Your task to perform on an android device: Is it going to rain this weekend? Image 0: 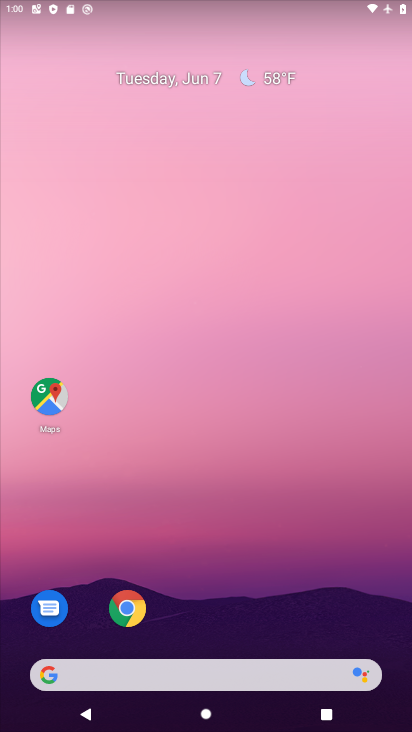
Step 0: click (278, 135)
Your task to perform on an android device: Is it going to rain this weekend? Image 1: 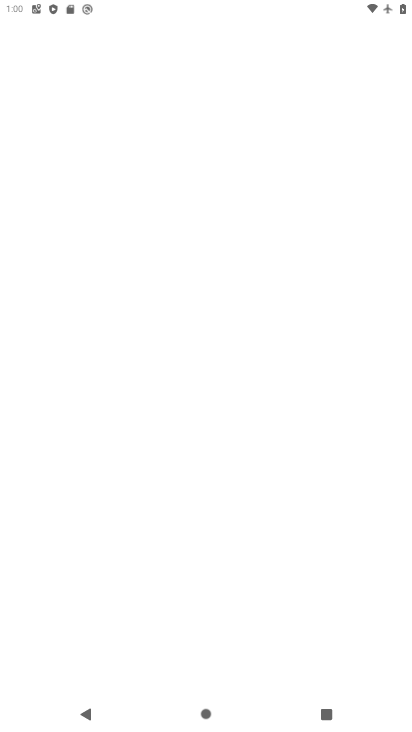
Step 1: press home button
Your task to perform on an android device: Is it going to rain this weekend? Image 2: 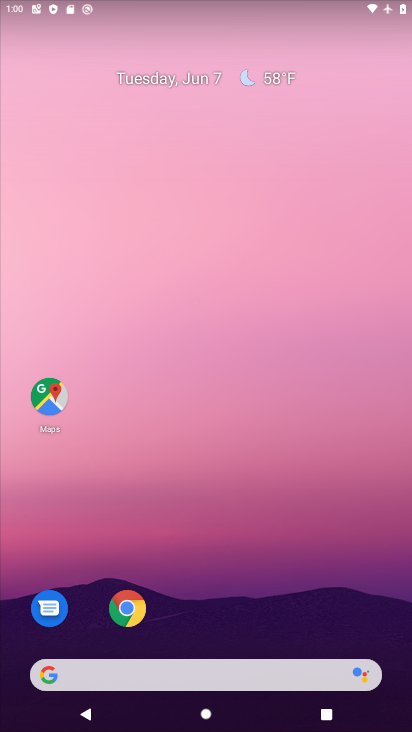
Step 2: click (274, 85)
Your task to perform on an android device: Is it going to rain this weekend? Image 3: 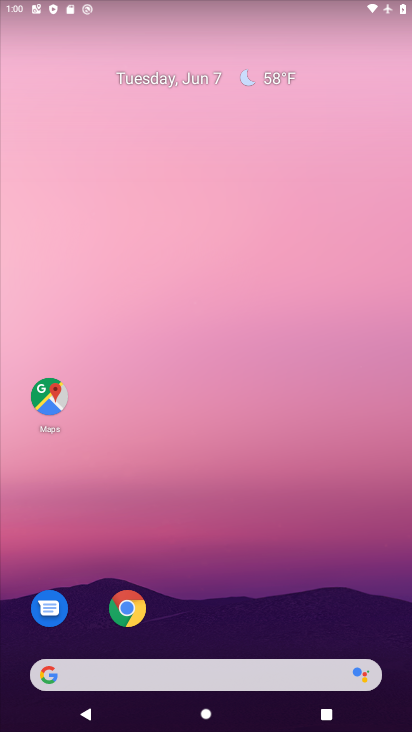
Step 3: click (265, 76)
Your task to perform on an android device: Is it going to rain this weekend? Image 4: 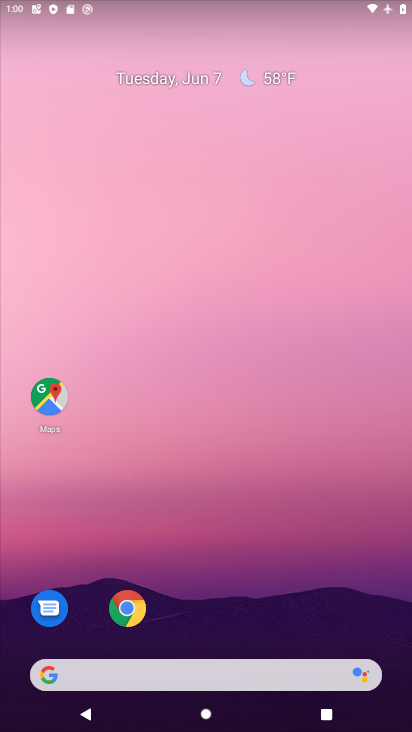
Step 4: click (268, 77)
Your task to perform on an android device: Is it going to rain this weekend? Image 5: 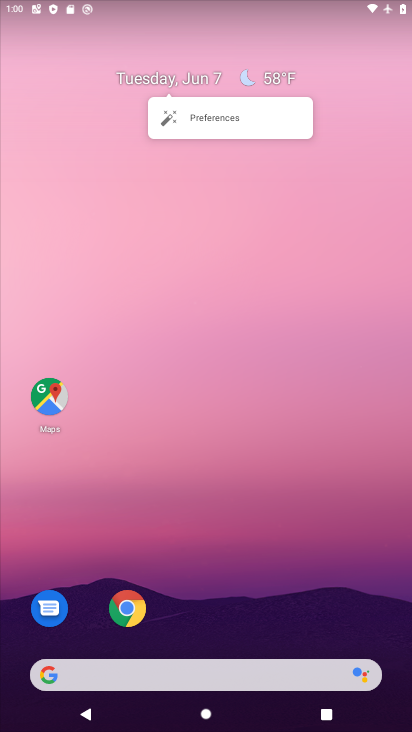
Step 5: click (301, 76)
Your task to perform on an android device: Is it going to rain this weekend? Image 6: 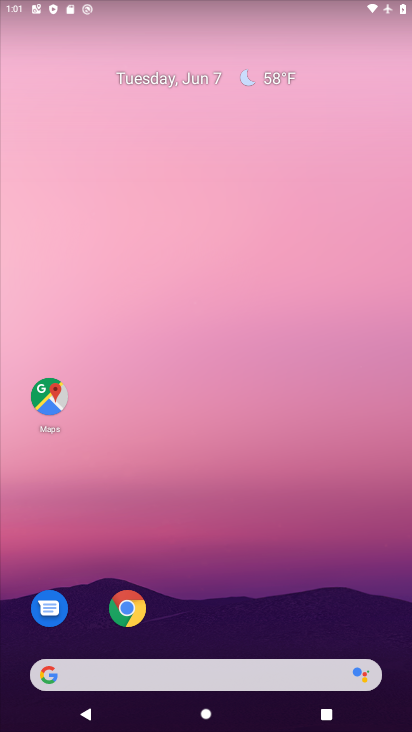
Step 6: click (128, 607)
Your task to perform on an android device: Is it going to rain this weekend? Image 7: 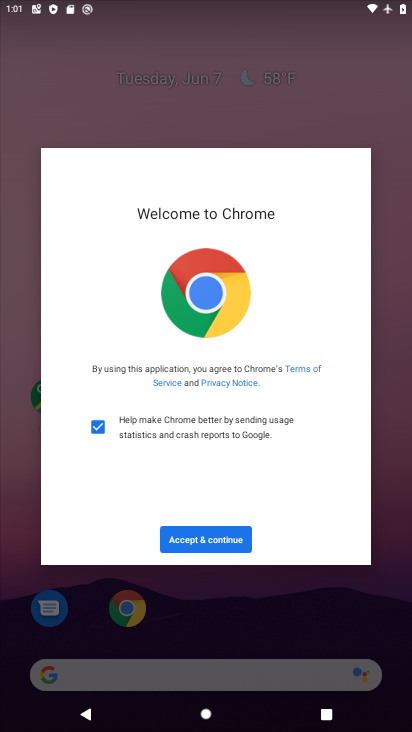
Step 7: click (215, 537)
Your task to perform on an android device: Is it going to rain this weekend? Image 8: 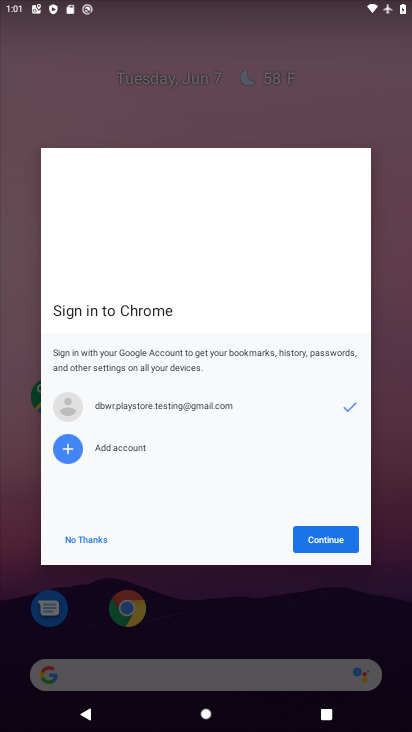
Step 8: click (337, 533)
Your task to perform on an android device: Is it going to rain this weekend? Image 9: 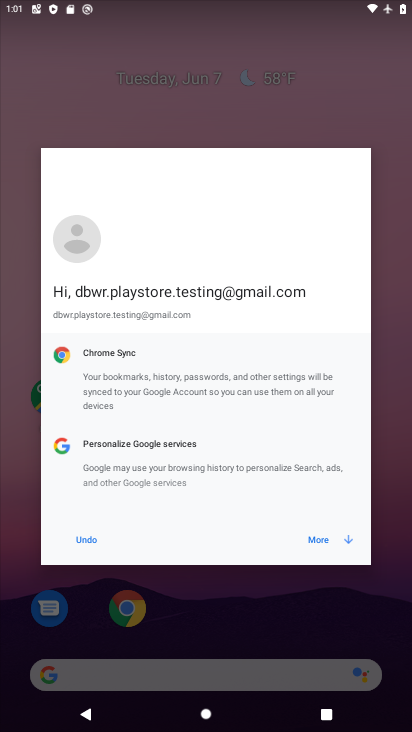
Step 9: click (327, 532)
Your task to perform on an android device: Is it going to rain this weekend? Image 10: 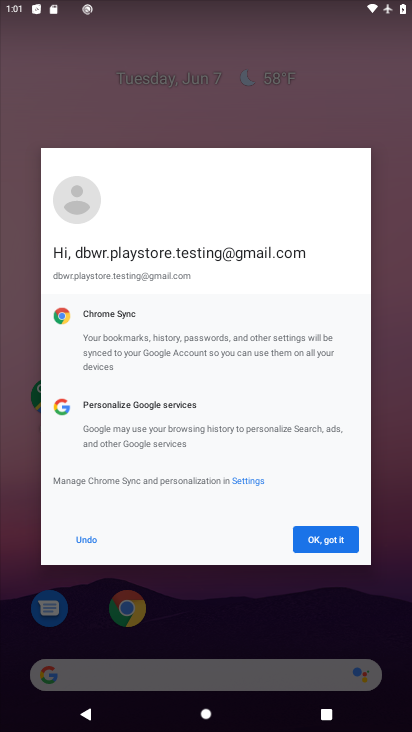
Step 10: click (330, 543)
Your task to perform on an android device: Is it going to rain this weekend? Image 11: 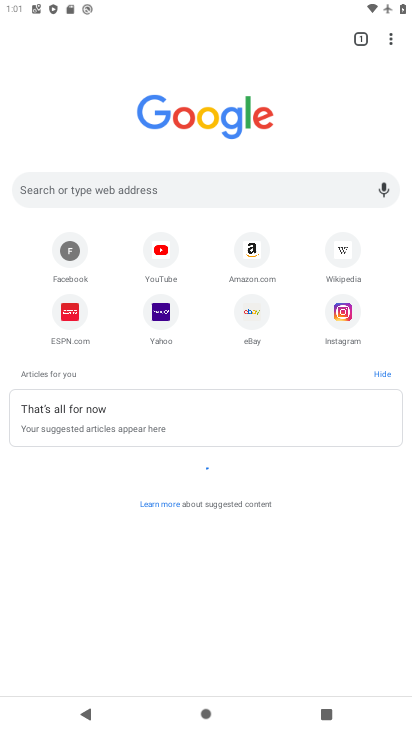
Step 11: click (211, 188)
Your task to perform on an android device: Is it going to rain this weekend? Image 12: 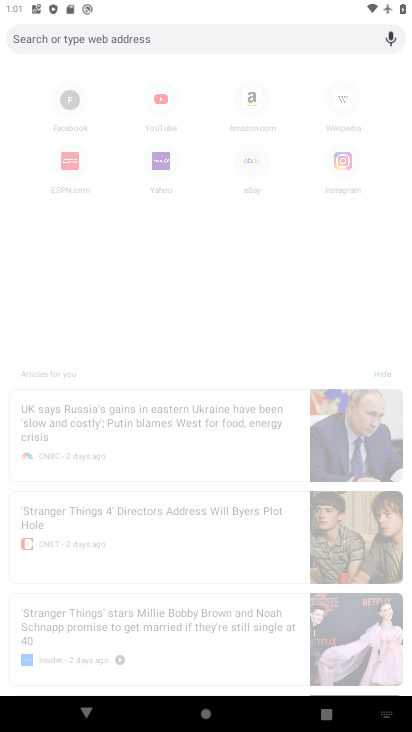
Step 12: type "weather"
Your task to perform on an android device: Is it going to rain this weekend? Image 13: 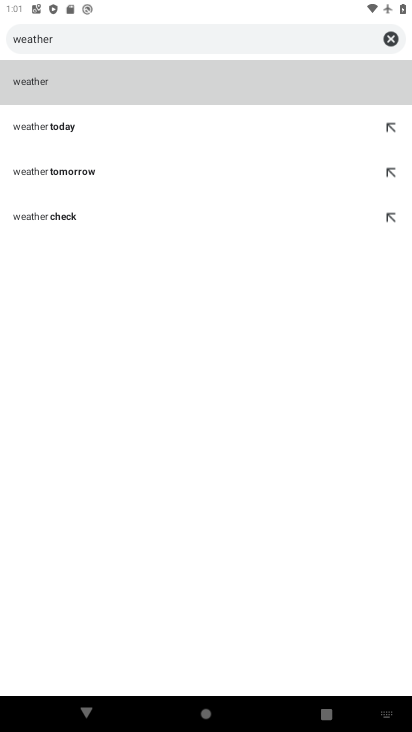
Step 13: click (23, 89)
Your task to perform on an android device: Is it going to rain this weekend? Image 14: 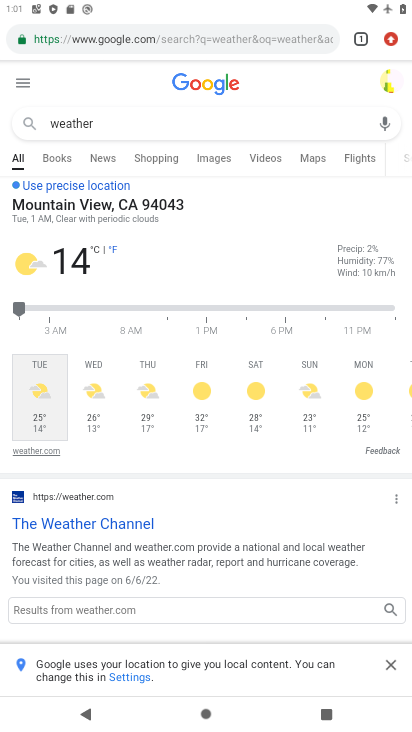
Step 14: task complete